Your task to perform on an android device: all mails in gmail Image 0: 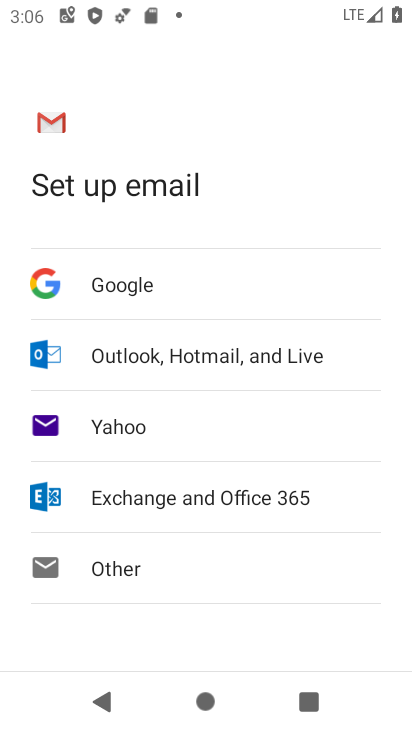
Step 0: press home button
Your task to perform on an android device: all mails in gmail Image 1: 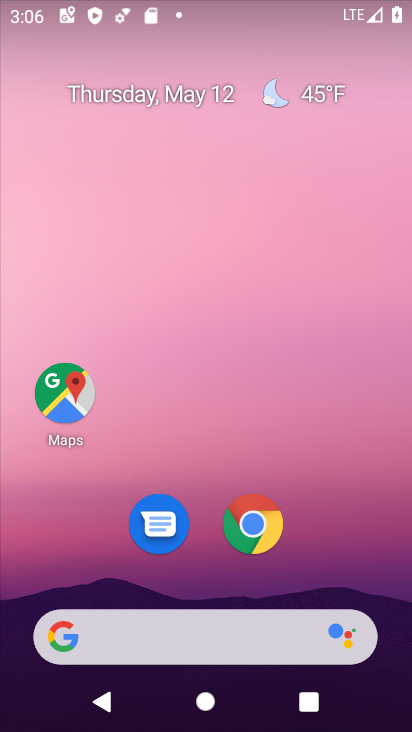
Step 1: drag from (216, 455) to (217, 52)
Your task to perform on an android device: all mails in gmail Image 2: 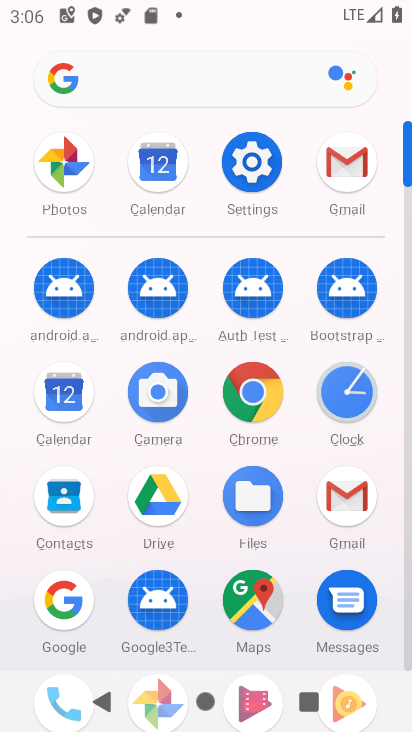
Step 2: click (349, 168)
Your task to perform on an android device: all mails in gmail Image 3: 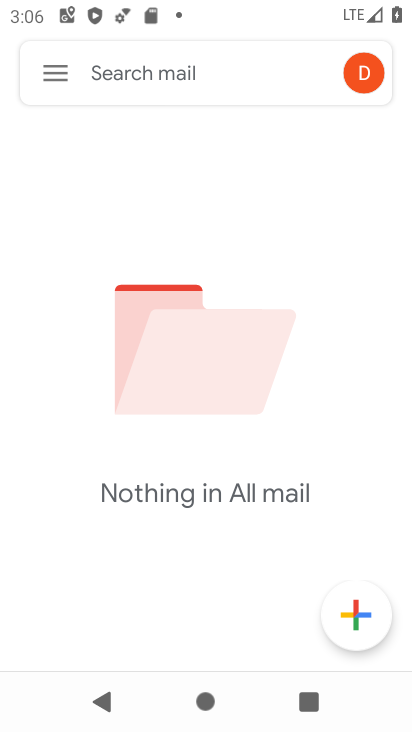
Step 3: task complete